Your task to perform on an android device: Search for "usb-a" on walmart, select the first entry, and add it to the cart. Image 0: 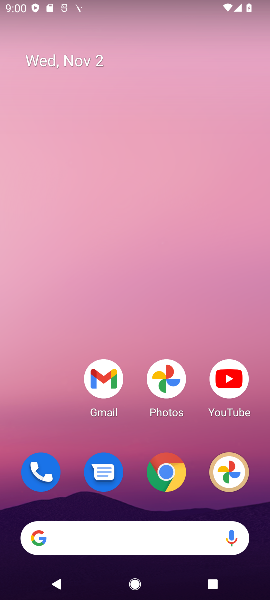
Step 0: click (167, 479)
Your task to perform on an android device: Search for "usb-a" on walmart, select the first entry, and add it to the cart. Image 1: 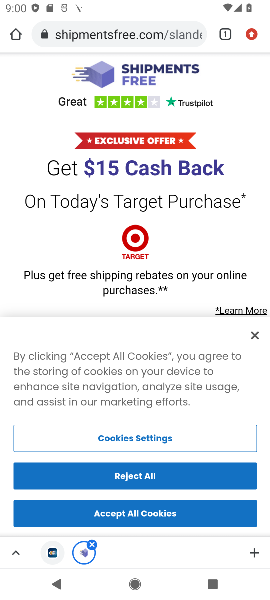
Step 1: click (137, 36)
Your task to perform on an android device: Search for "usb-a" on walmart, select the first entry, and add it to the cart. Image 2: 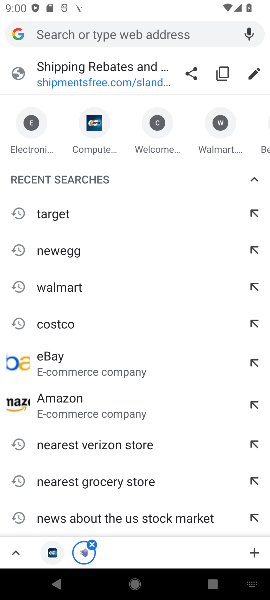
Step 2: type "walmart"
Your task to perform on an android device: Search for "usb-a" on walmart, select the first entry, and add it to the cart. Image 3: 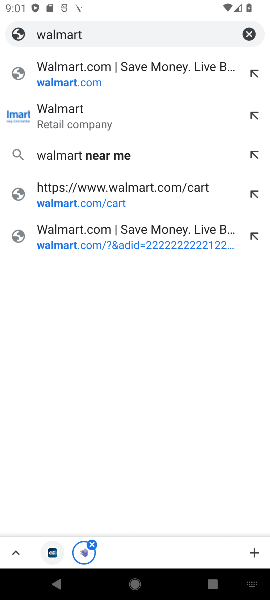
Step 3: click (66, 72)
Your task to perform on an android device: Search for "usb-a" on walmart, select the first entry, and add it to the cart. Image 4: 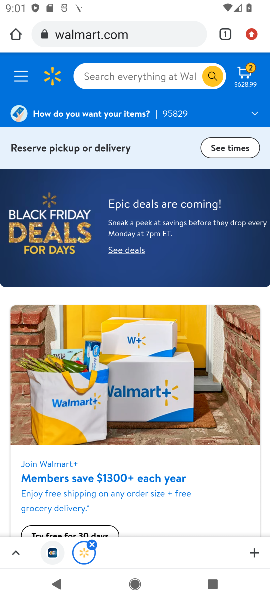
Step 4: click (167, 70)
Your task to perform on an android device: Search for "usb-a" on walmart, select the first entry, and add it to the cart. Image 5: 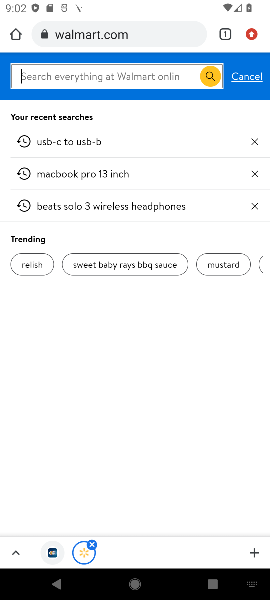
Step 5: type "usb-a"
Your task to perform on an android device: Search for "usb-a" on walmart, select the first entry, and add it to the cart. Image 6: 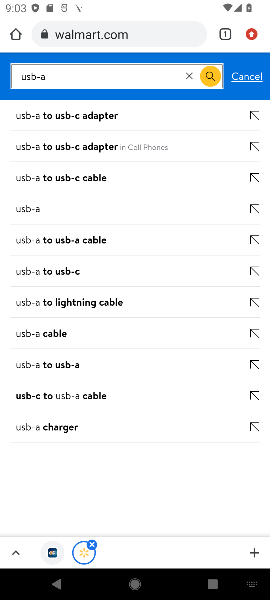
Step 6: click (66, 115)
Your task to perform on an android device: Search for "usb-a" on walmart, select the first entry, and add it to the cart. Image 7: 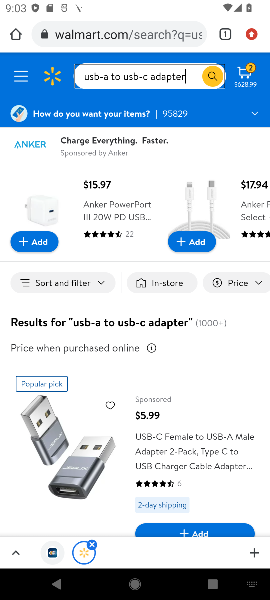
Step 7: click (181, 531)
Your task to perform on an android device: Search for "usb-a" on walmart, select the first entry, and add it to the cart. Image 8: 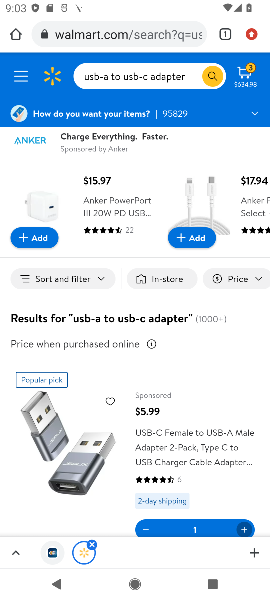
Step 8: task complete